Your task to perform on an android device: set the timer Image 0: 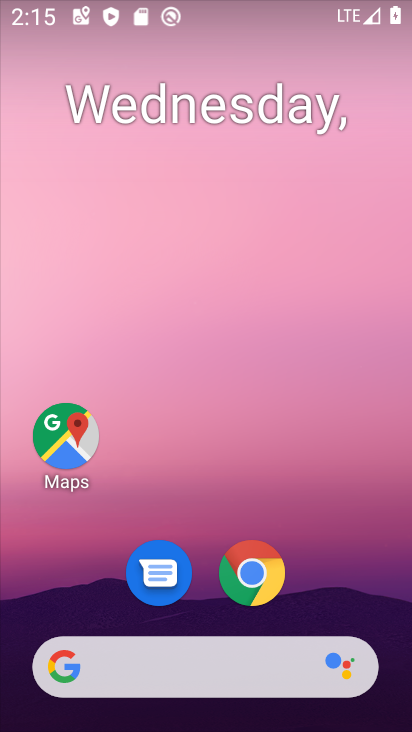
Step 0: drag from (208, 564) to (176, 129)
Your task to perform on an android device: set the timer Image 1: 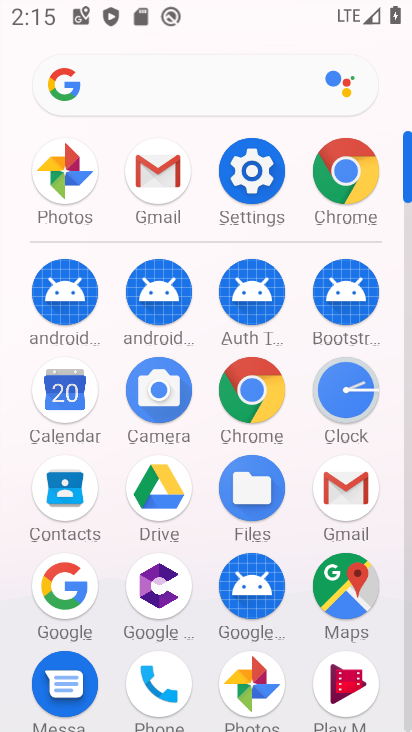
Step 1: click (340, 388)
Your task to perform on an android device: set the timer Image 2: 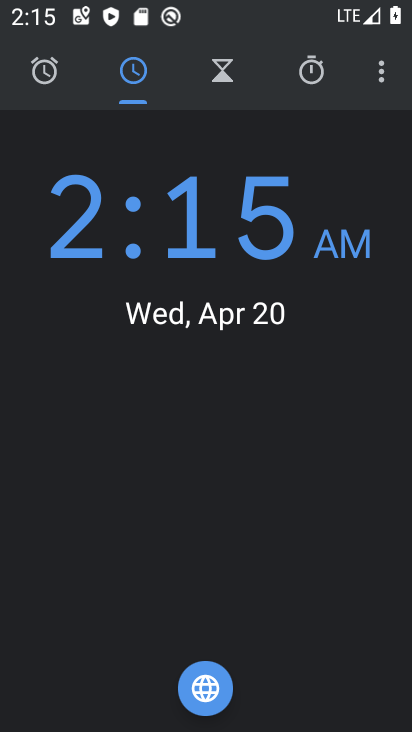
Step 2: click (222, 69)
Your task to perform on an android device: set the timer Image 3: 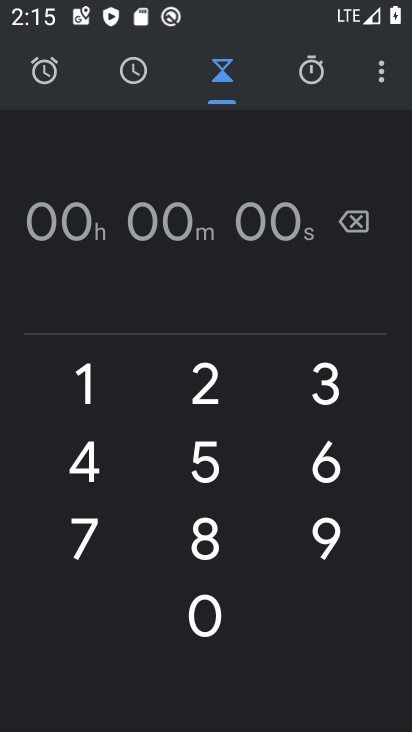
Step 3: click (208, 383)
Your task to perform on an android device: set the timer Image 4: 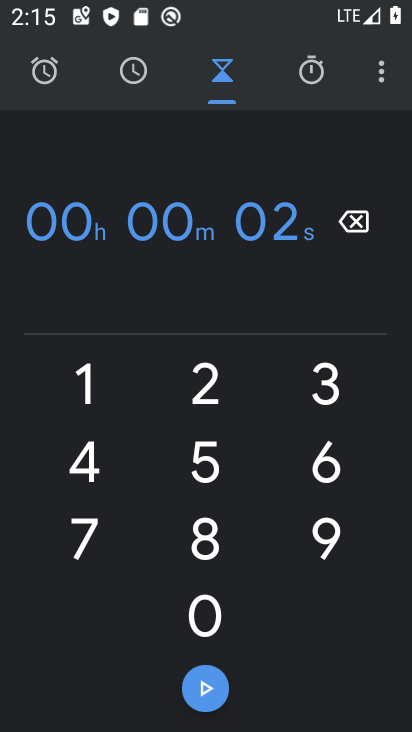
Step 4: click (208, 383)
Your task to perform on an android device: set the timer Image 5: 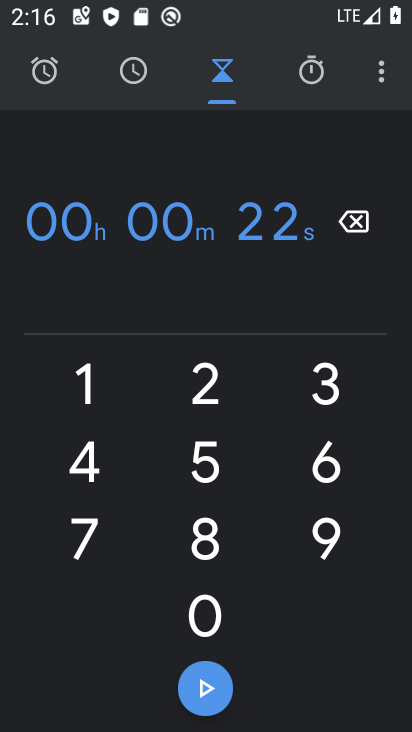
Step 5: task complete